Your task to perform on an android device: uninstall "Google Drive" Image 0: 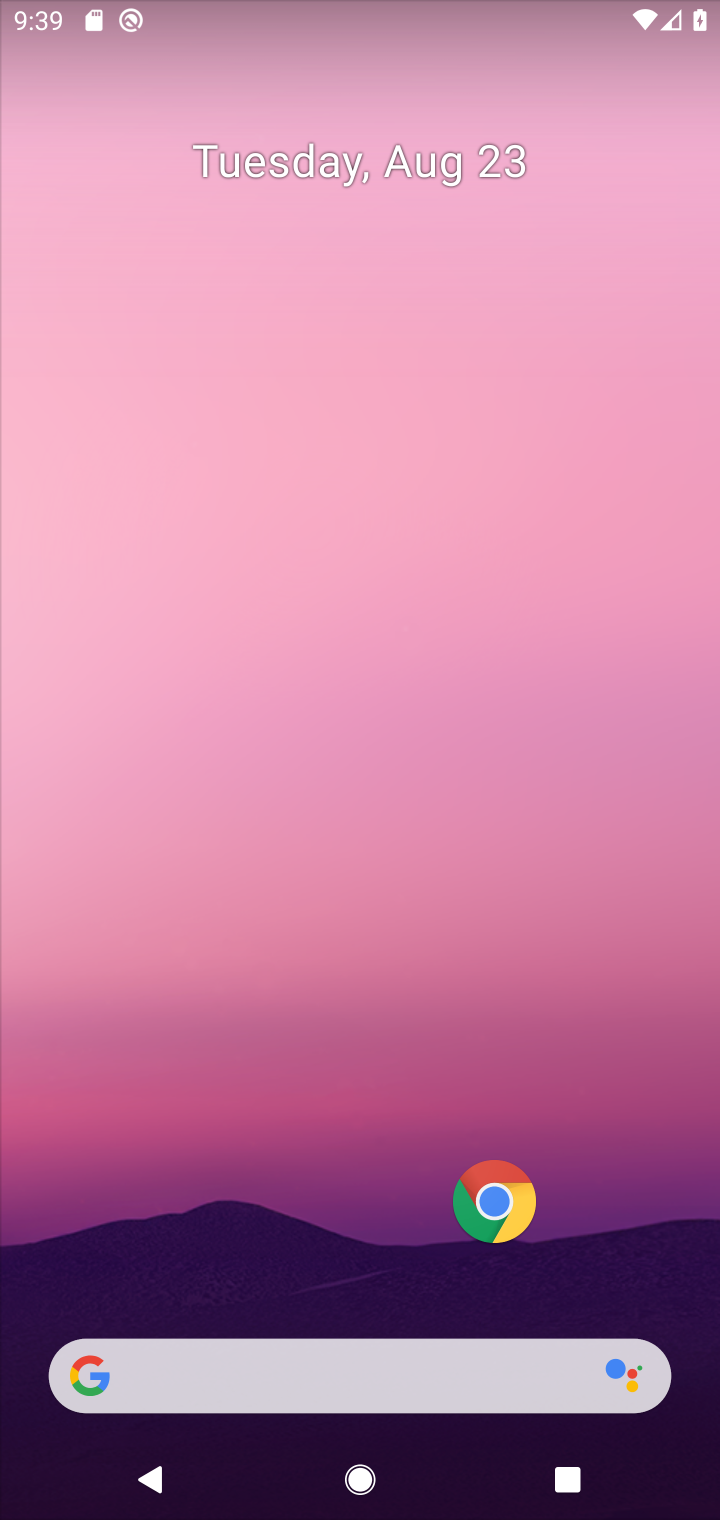
Step 0: drag from (336, 1221) to (318, 410)
Your task to perform on an android device: uninstall "Google Drive" Image 1: 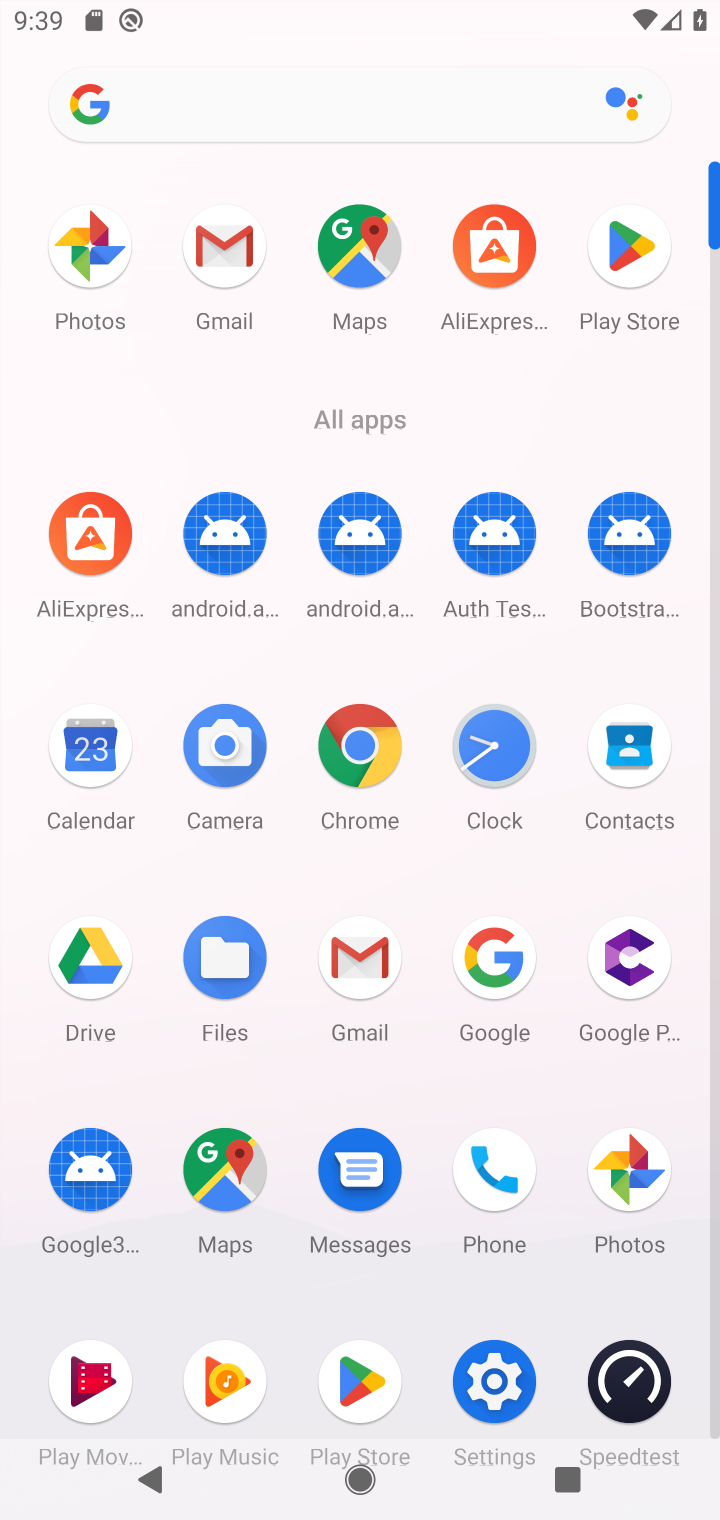
Step 1: click (623, 243)
Your task to perform on an android device: uninstall "Google Drive" Image 2: 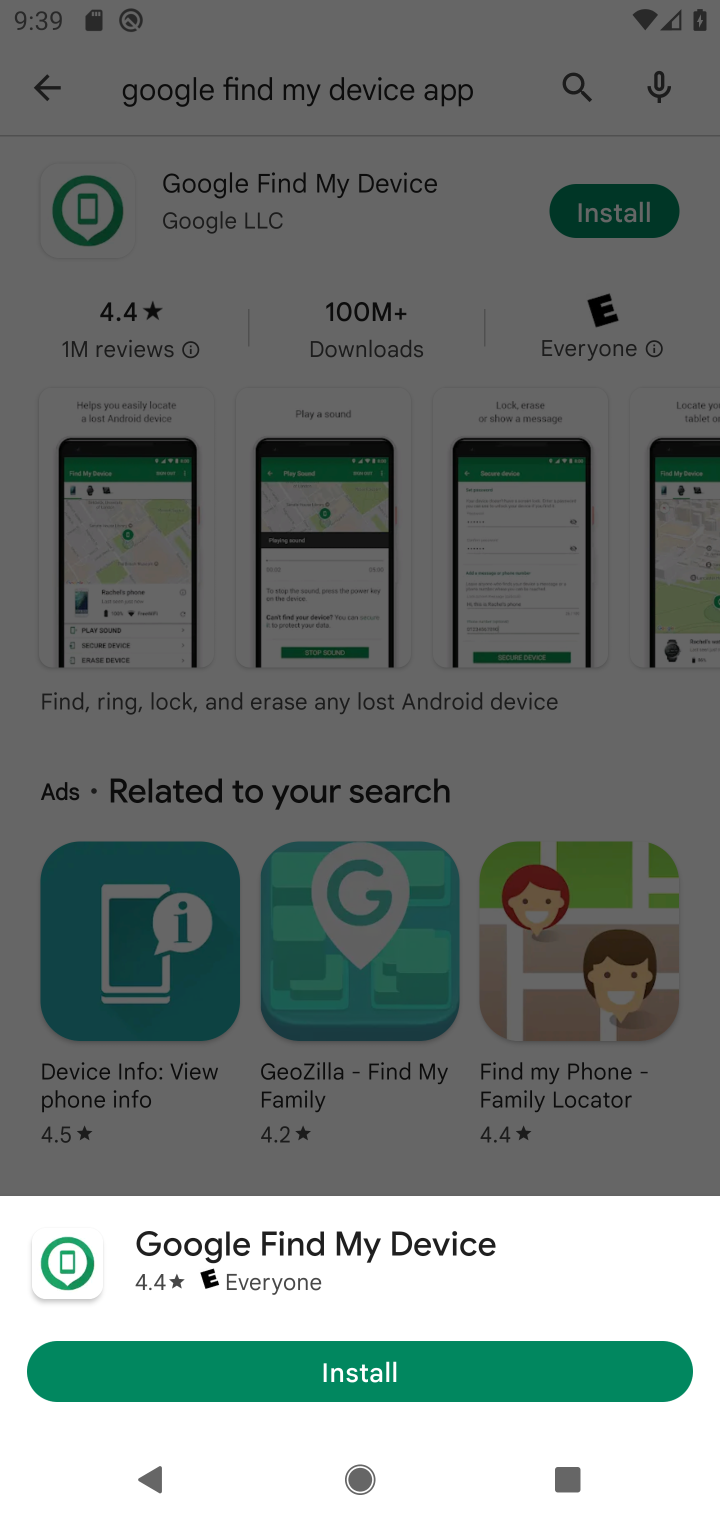
Step 2: click (27, 81)
Your task to perform on an android device: uninstall "Google Drive" Image 3: 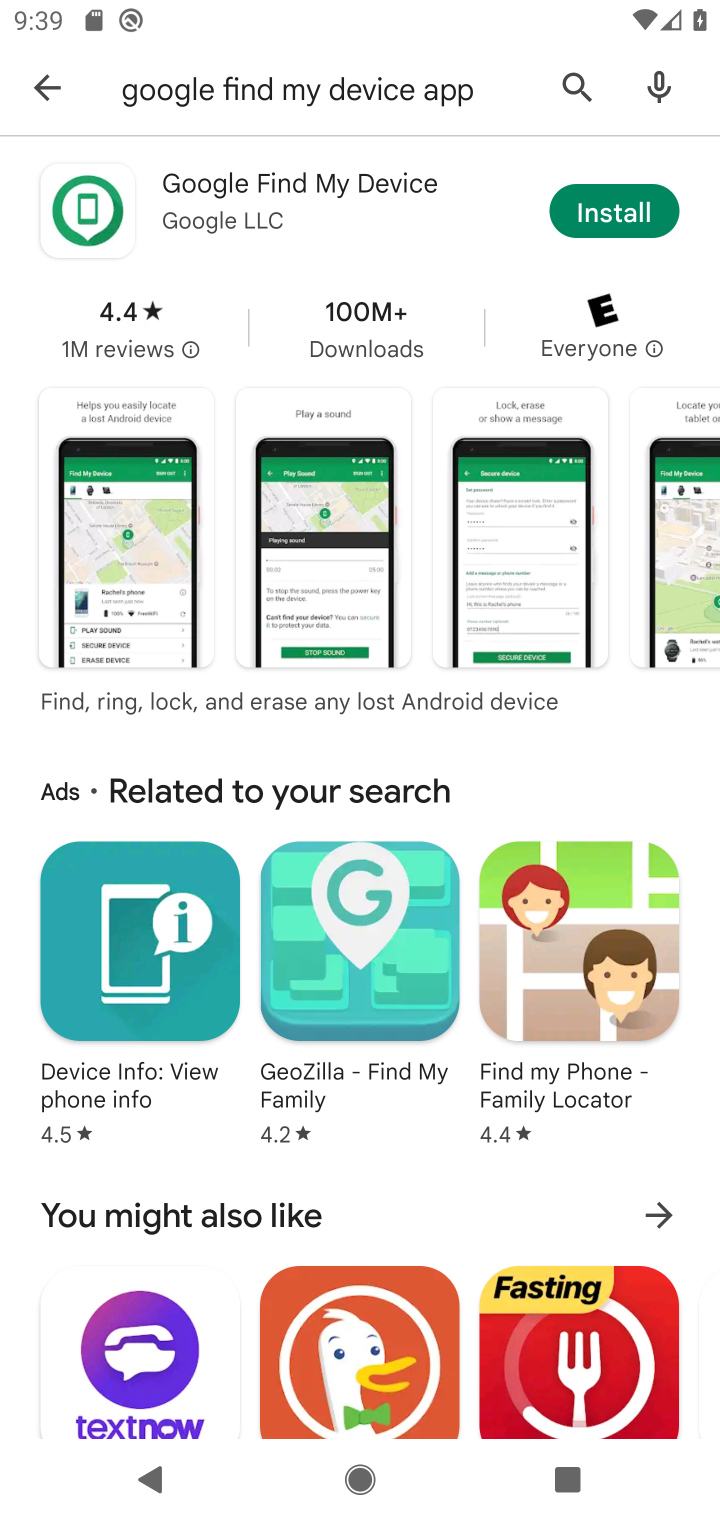
Step 3: click (27, 81)
Your task to perform on an android device: uninstall "Google Drive" Image 4: 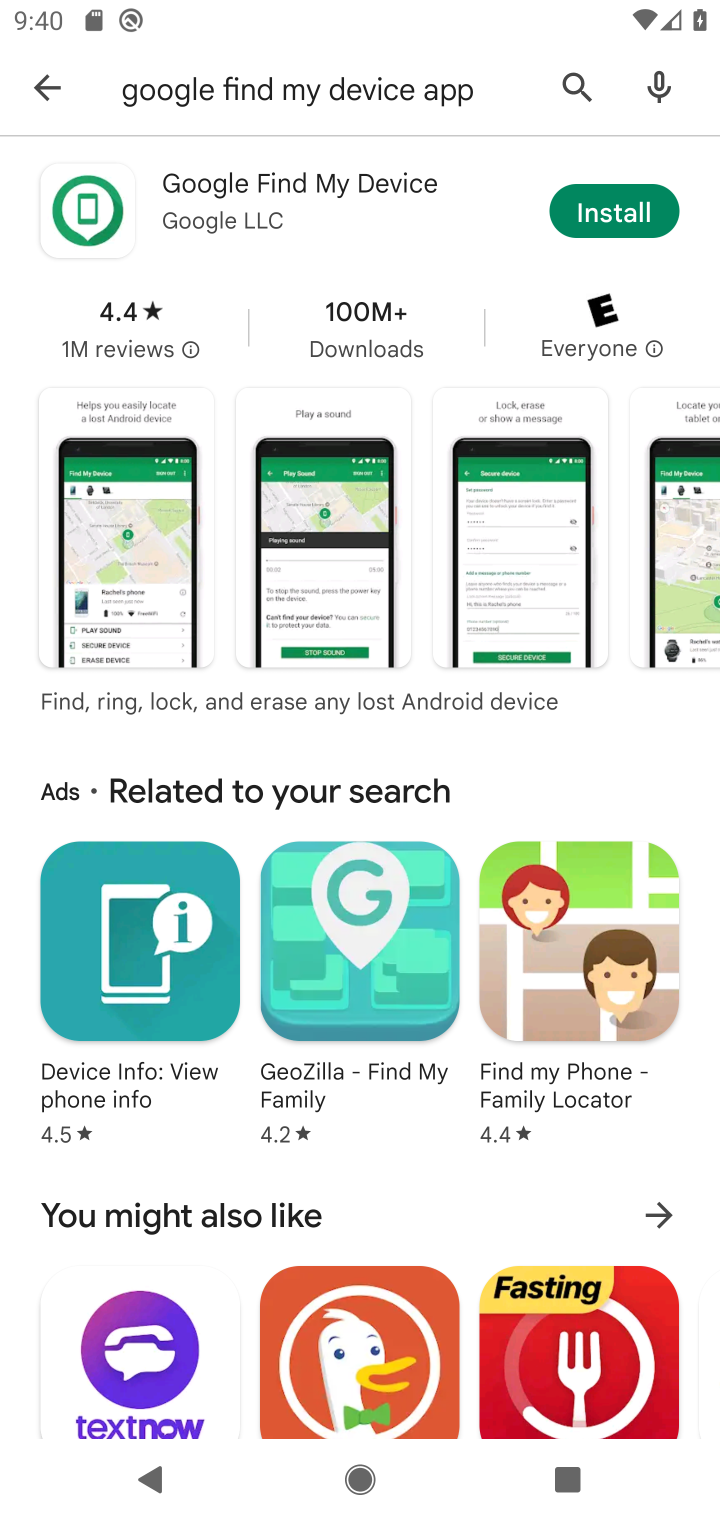
Step 4: click (52, 89)
Your task to perform on an android device: uninstall "Google Drive" Image 5: 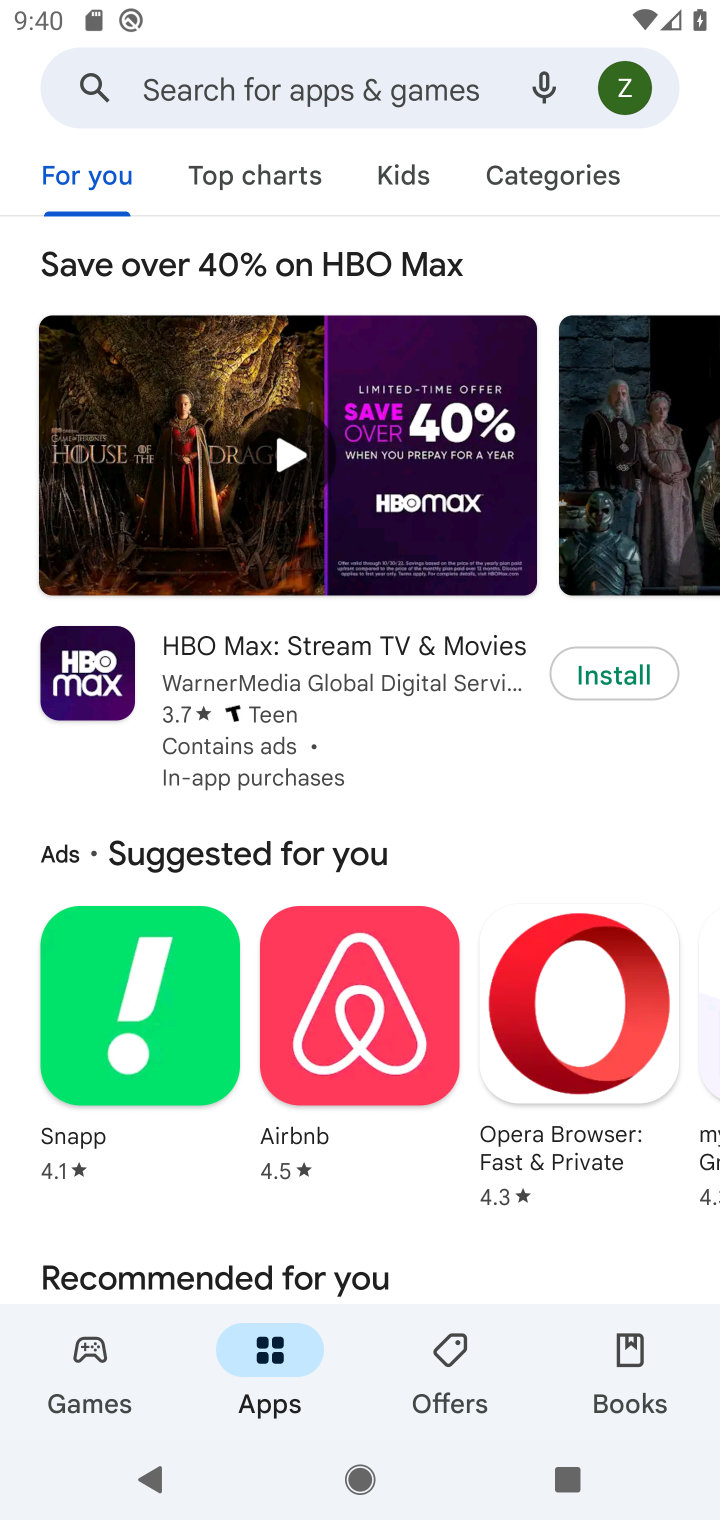
Step 5: click (298, 92)
Your task to perform on an android device: uninstall "Google Drive" Image 6: 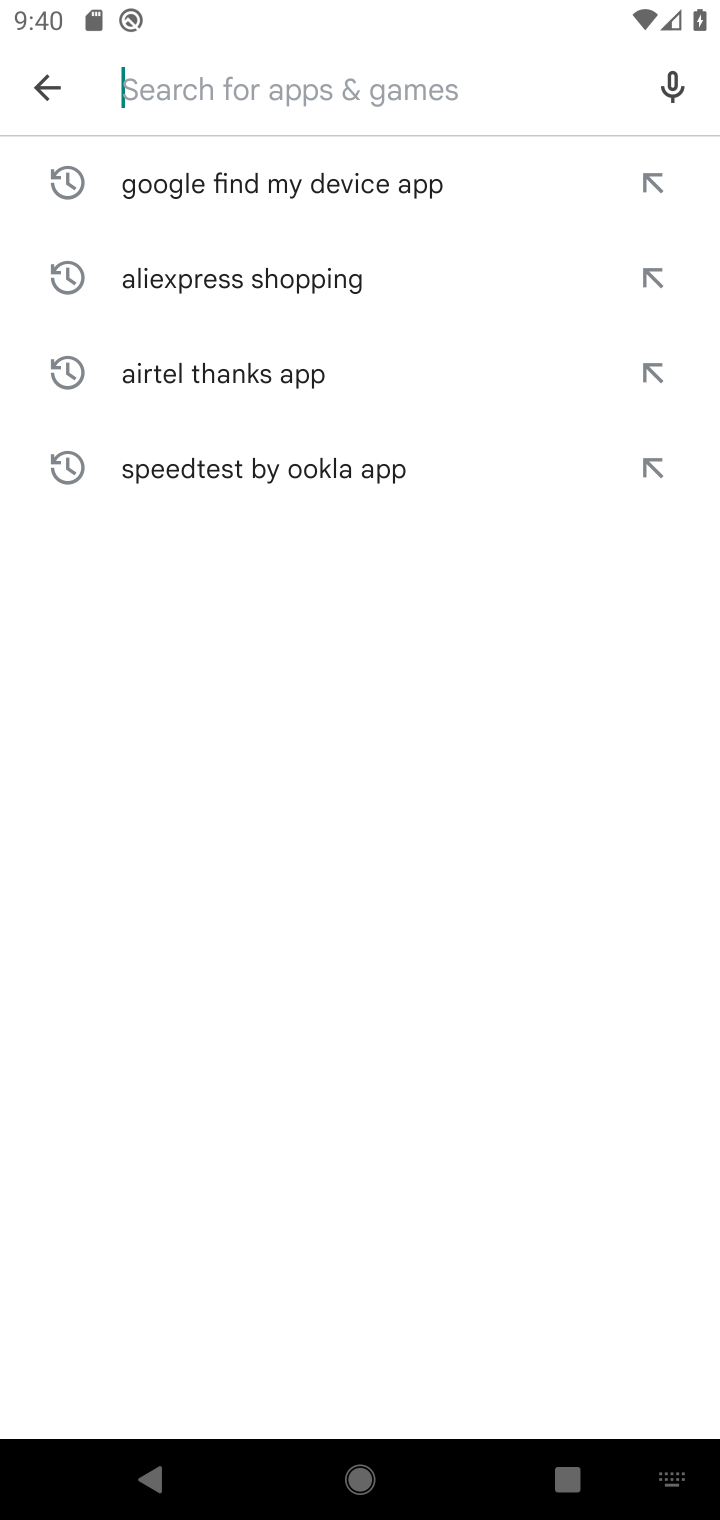
Step 6: type "Google Drive "
Your task to perform on an android device: uninstall "Google Drive" Image 7: 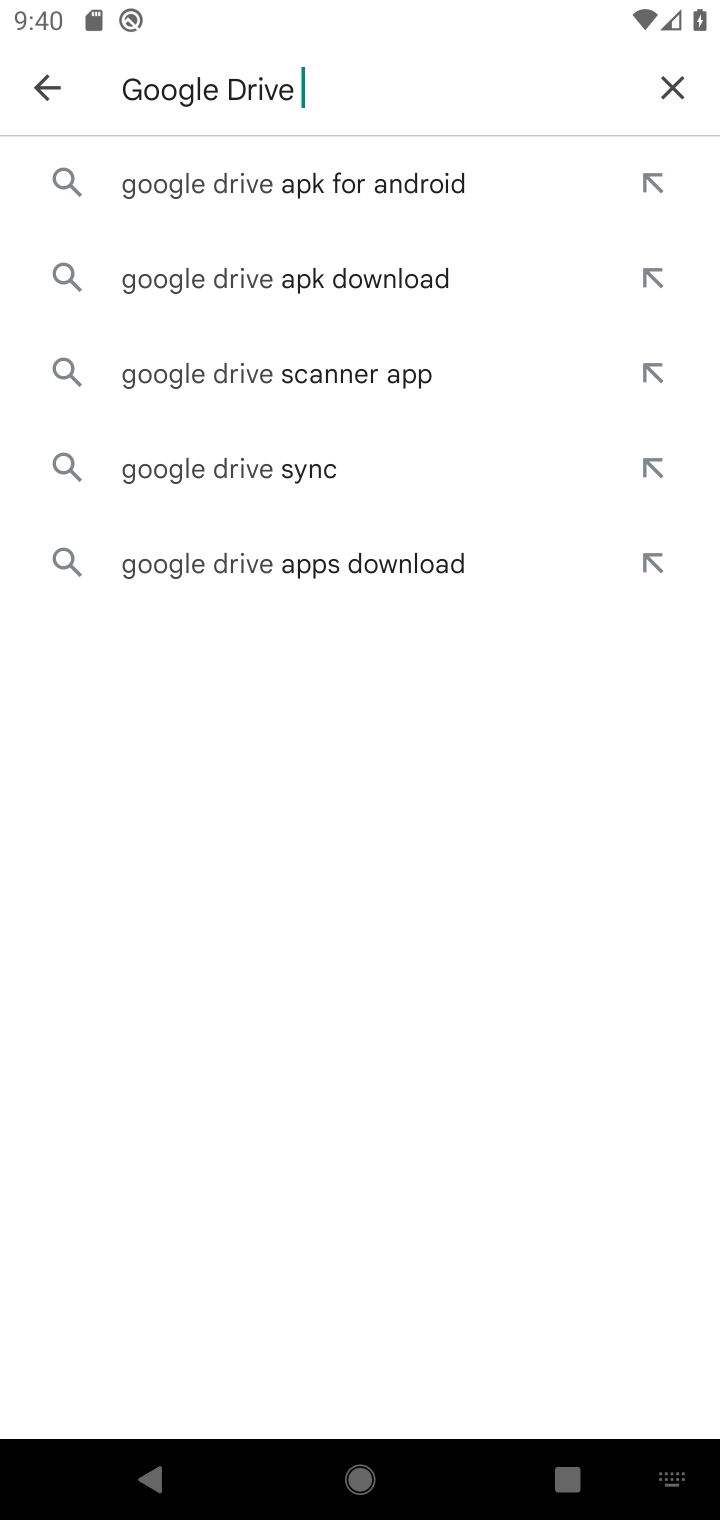
Step 7: click (398, 166)
Your task to perform on an android device: uninstall "Google Drive" Image 8: 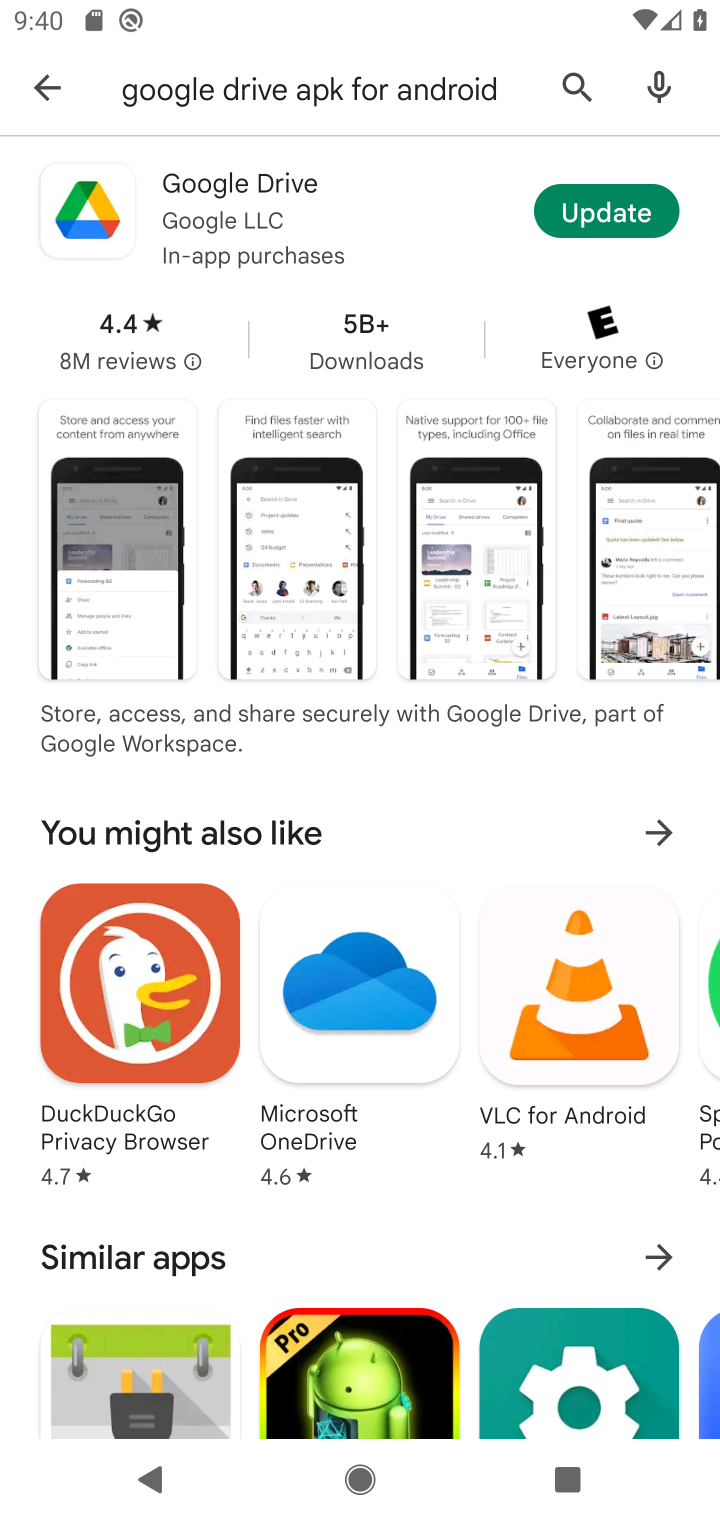
Step 8: click (245, 211)
Your task to perform on an android device: uninstall "Google Drive" Image 9: 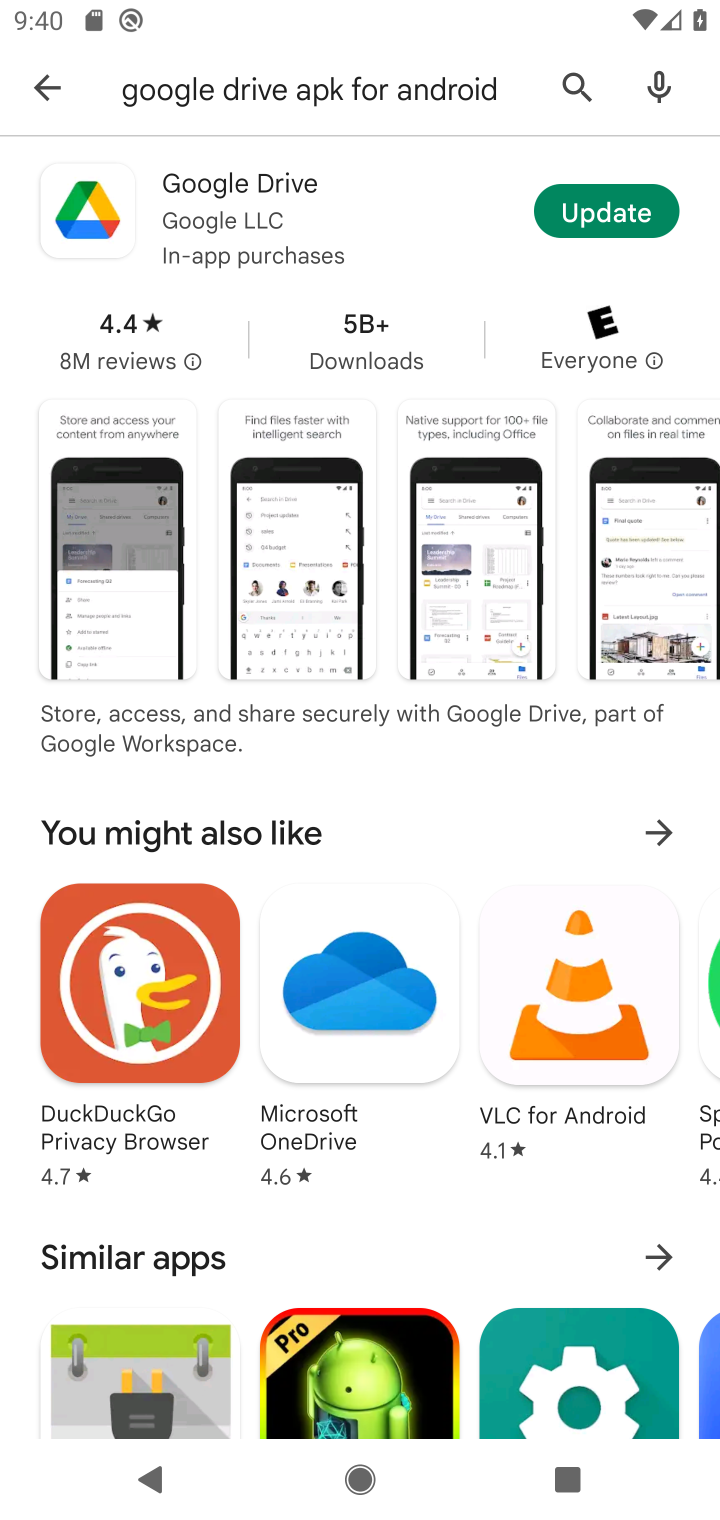
Step 9: click (570, 194)
Your task to perform on an android device: uninstall "Google Drive" Image 10: 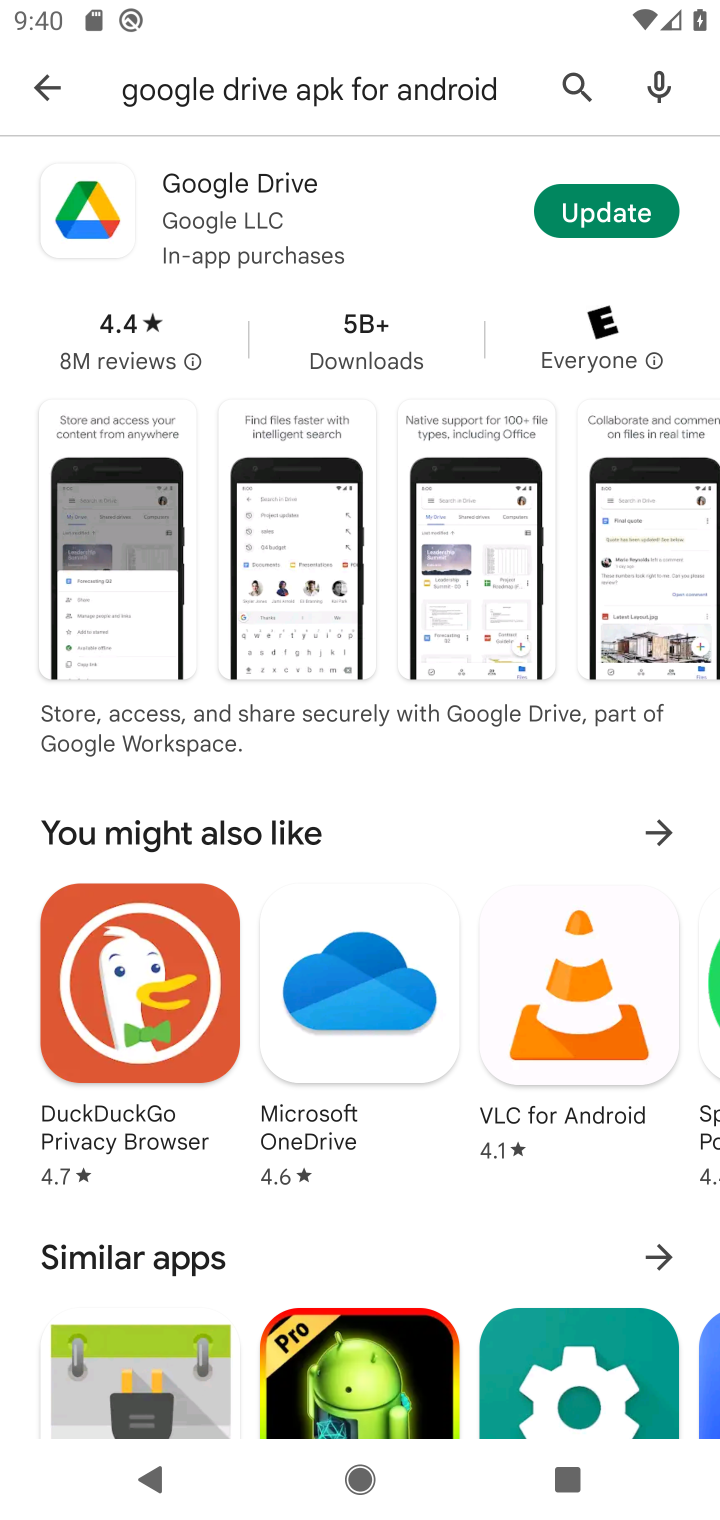
Step 10: click (343, 207)
Your task to perform on an android device: uninstall "Google Drive" Image 11: 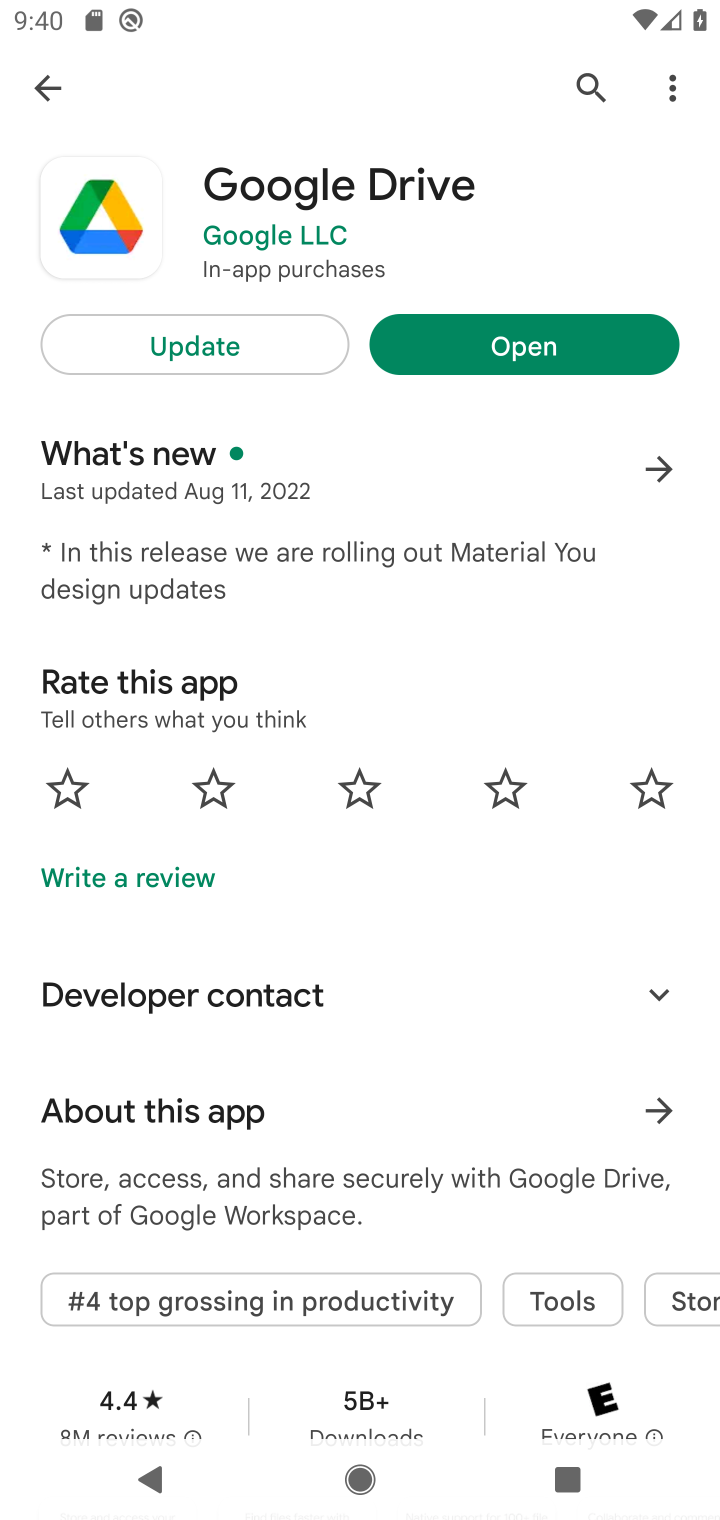
Step 11: click (218, 339)
Your task to perform on an android device: uninstall "Google Drive" Image 12: 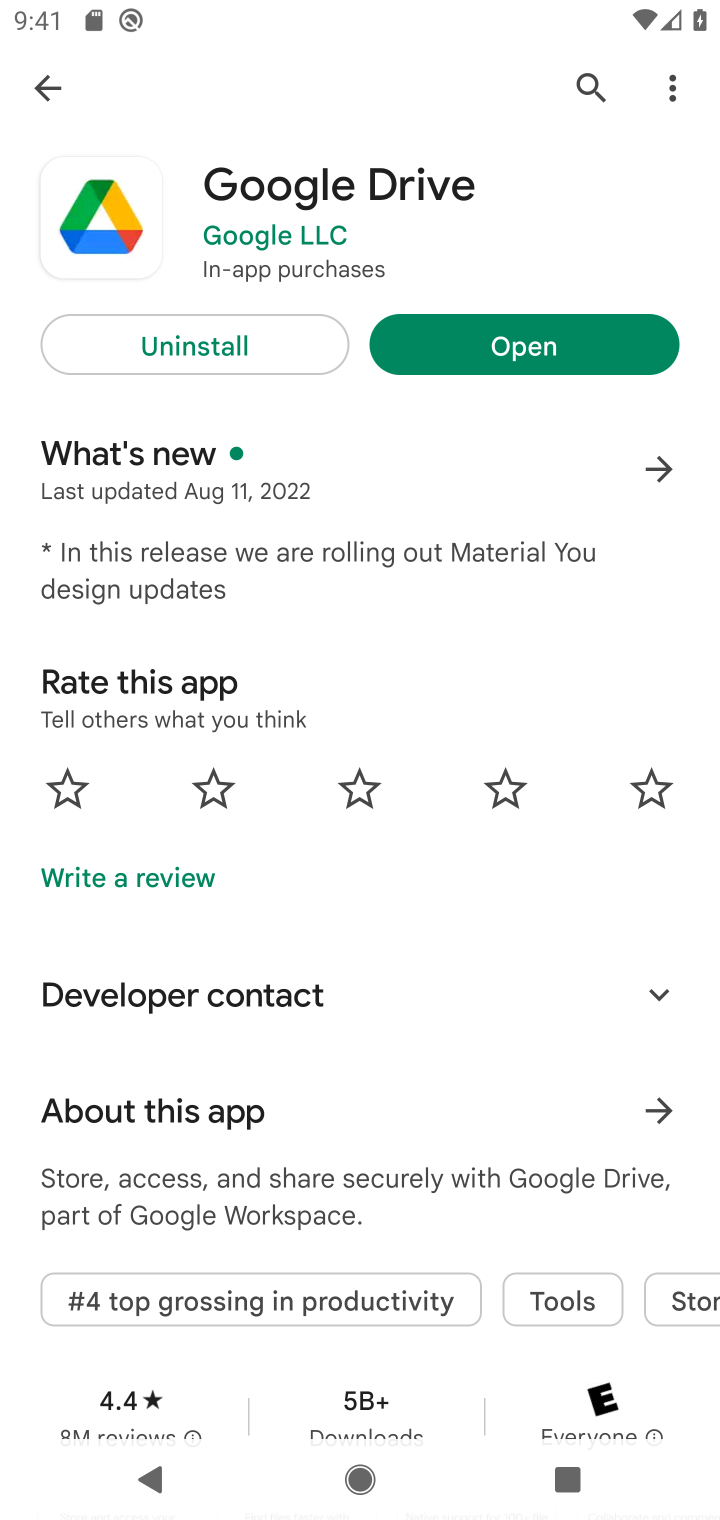
Step 12: click (226, 347)
Your task to perform on an android device: uninstall "Google Drive" Image 13: 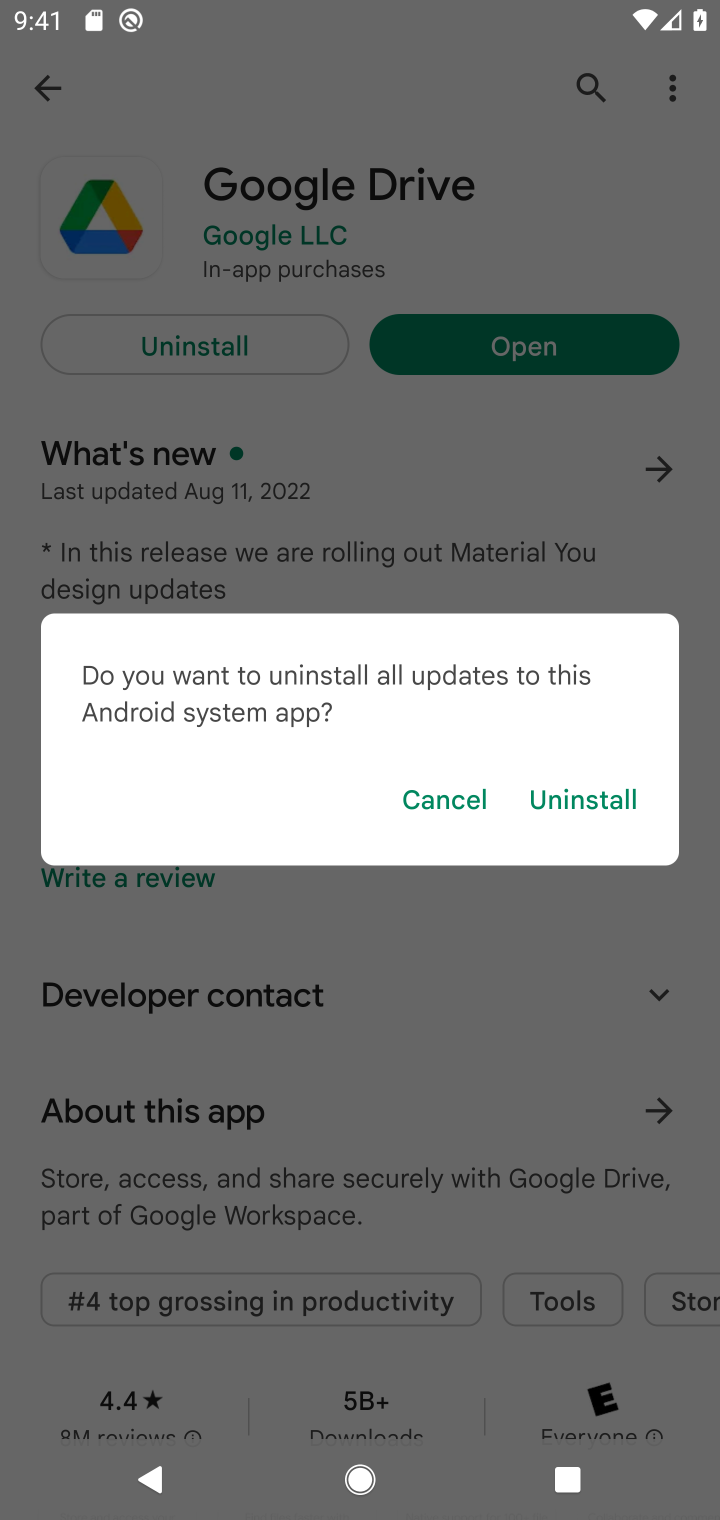
Step 13: click (595, 792)
Your task to perform on an android device: uninstall "Google Drive" Image 14: 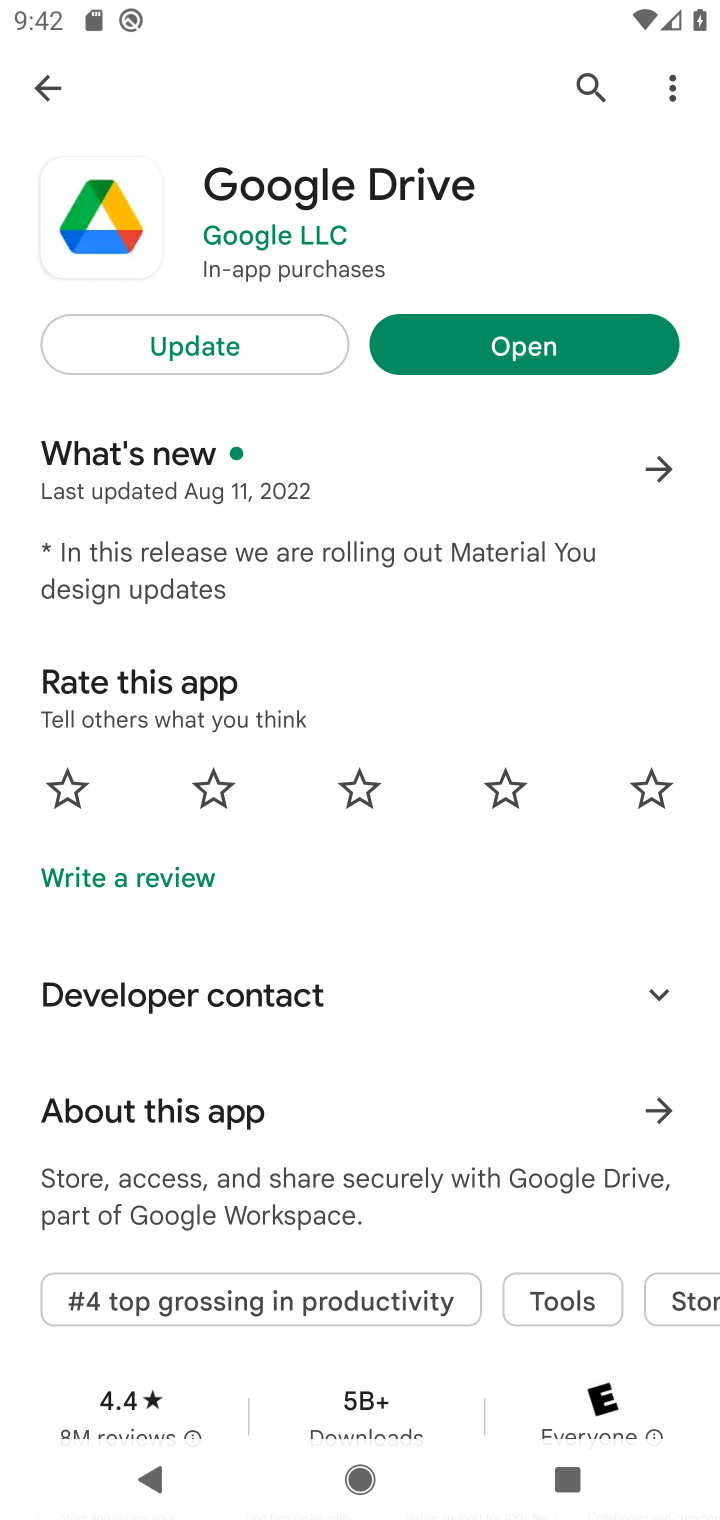
Step 14: task complete